Your task to perform on an android device: find snoozed emails in the gmail app Image 0: 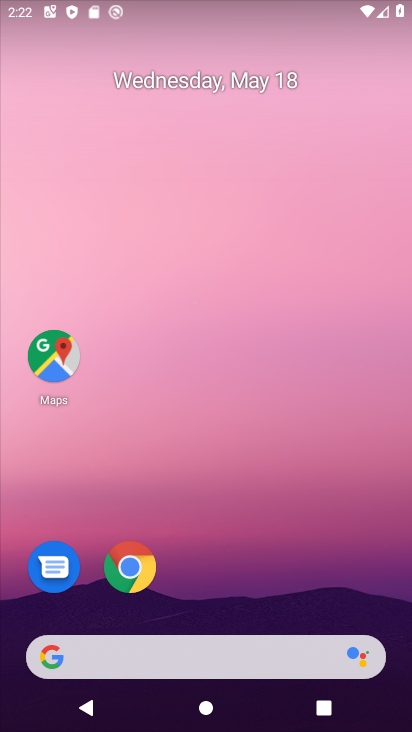
Step 0: click (117, 559)
Your task to perform on an android device: find snoozed emails in the gmail app Image 1: 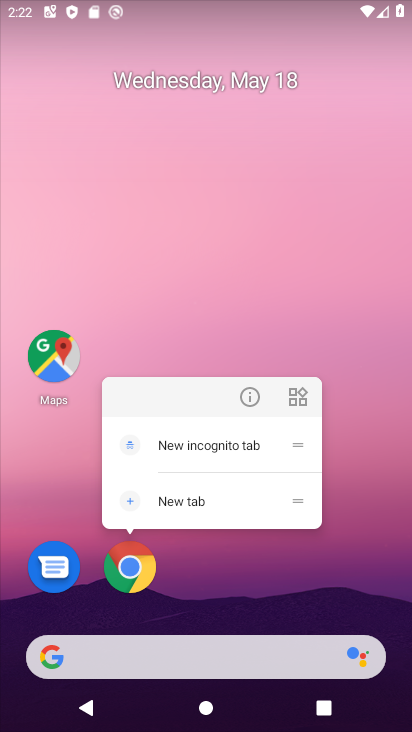
Step 1: click (121, 569)
Your task to perform on an android device: find snoozed emails in the gmail app Image 2: 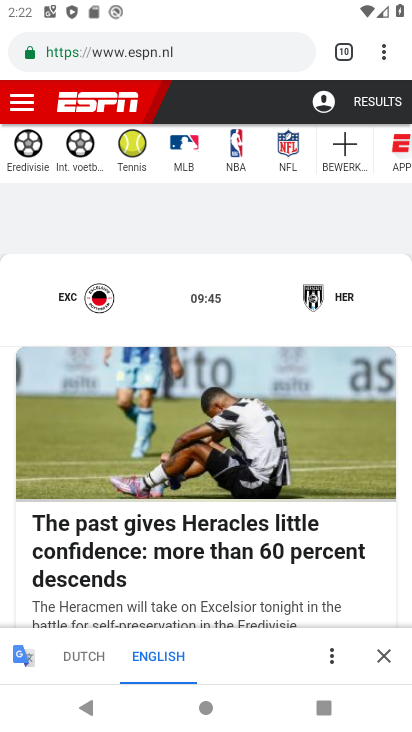
Step 2: press home button
Your task to perform on an android device: find snoozed emails in the gmail app Image 3: 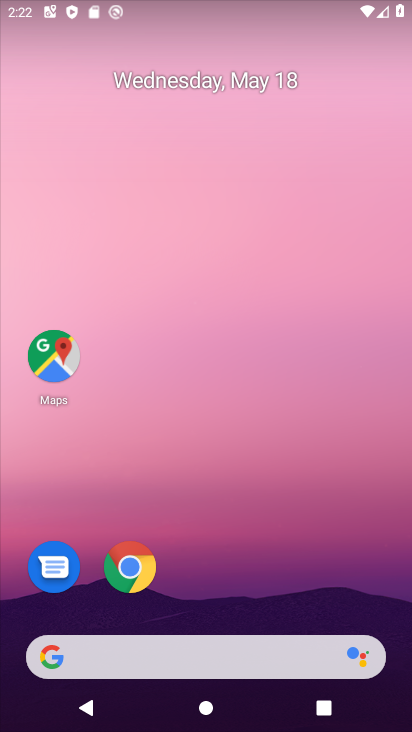
Step 3: drag from (223, 565) to (252, 177)
Your task to perform on an android device: find snoozed emails in the gmail app Image 4: 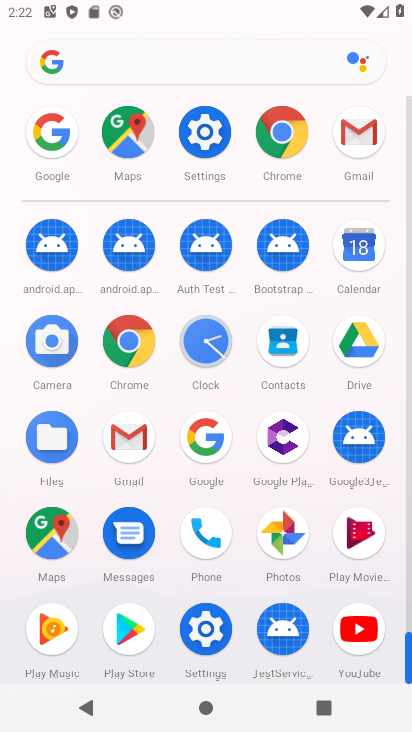
Step 4: click (364, 130)
Your task to perform on an android device: find snoozed emails in the gmail app Image 5: 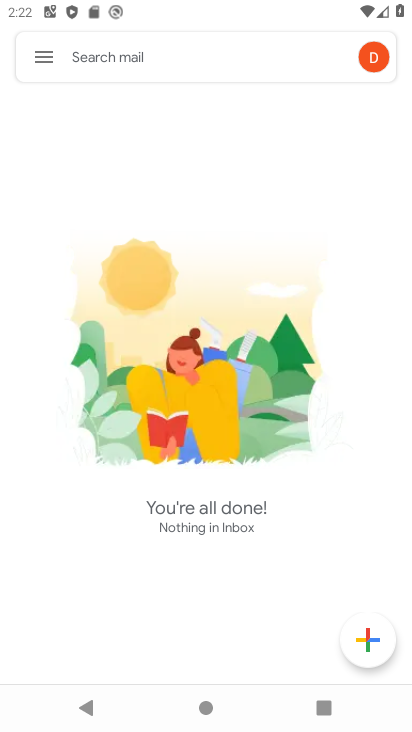
Step 5: click (39, 49)
Your task to perform on an android device: find snoozed emails in the gmail app Image 6: 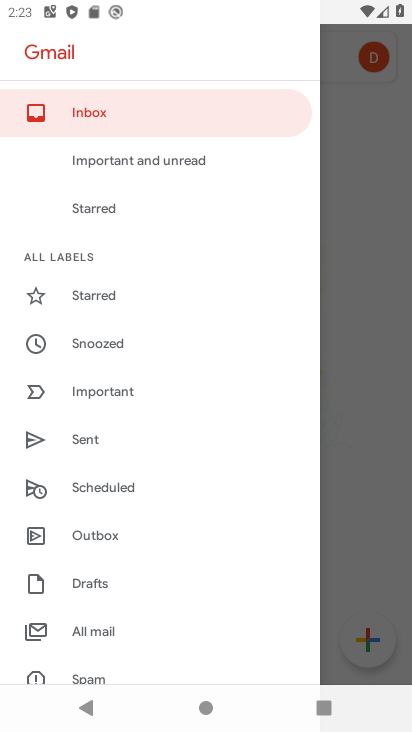
Step 6: click (97, 351)
Your task to perform on an android device: find snoozed emails in the gmail app Image 7: 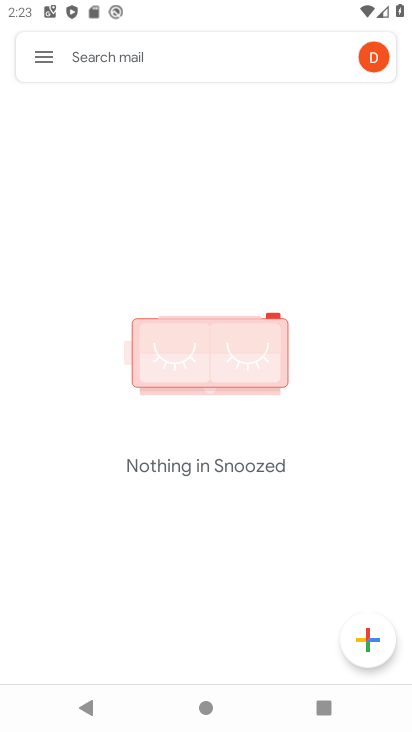
Step 7: task complete